Your task to perform on an android device: change keyboard looks Image 0: 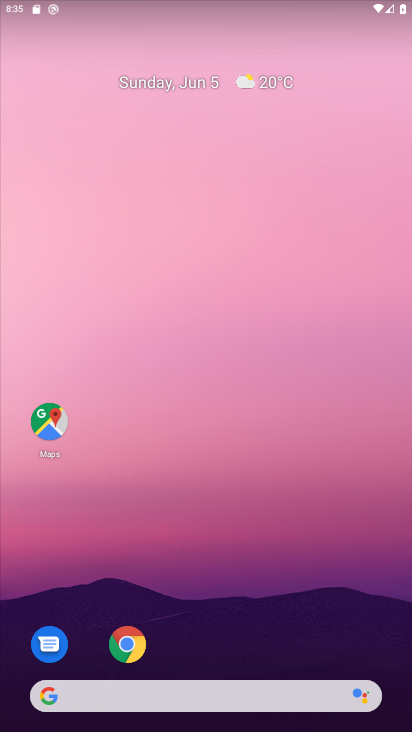
Step 0: drag from (203, 550) to (210, 173)
Your task to perform on an android device: change keyboard looks Image 1: 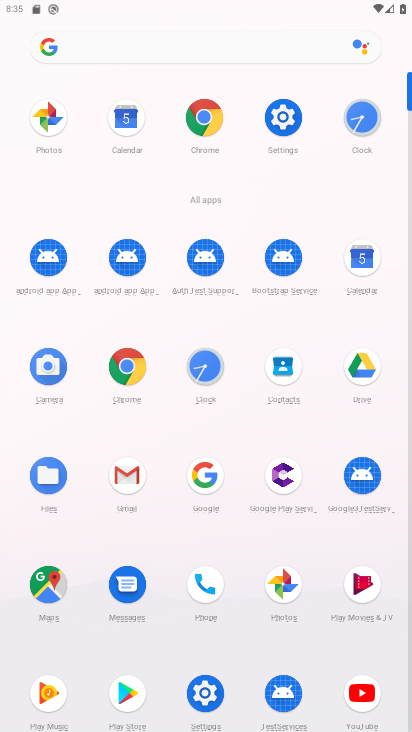
Step 1: click (200, 681)
Your task to perform on an android device: change keyboard looks Image 2: 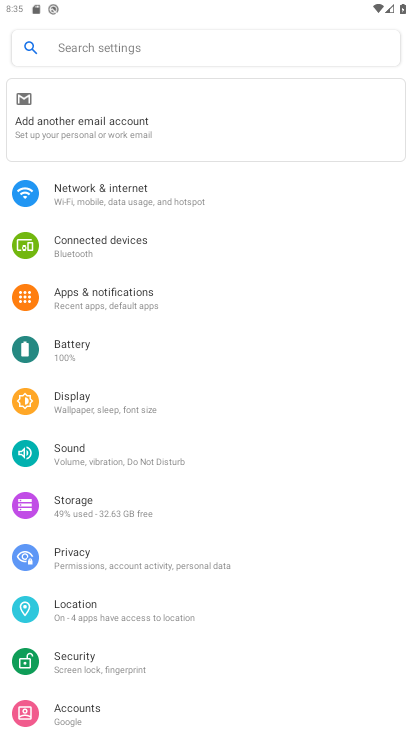
Step 2: drag from (193, 663) to (249, 302)
Your task to perform on an android device: change keyboard looks Image 3: 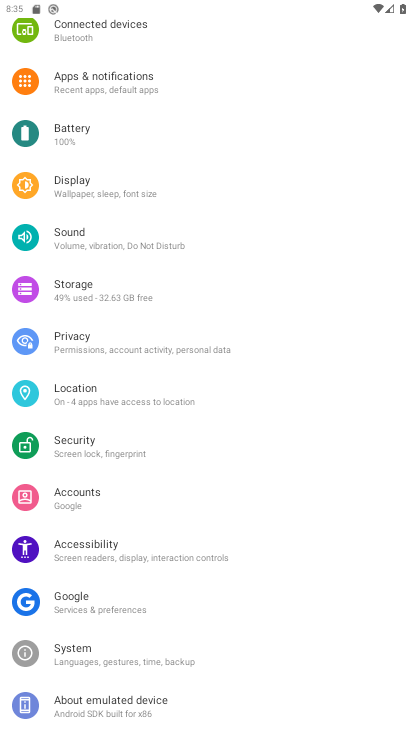
Step 3: click (172, 661)
Your task to perform on an android device: change keyboard looks Image 4: 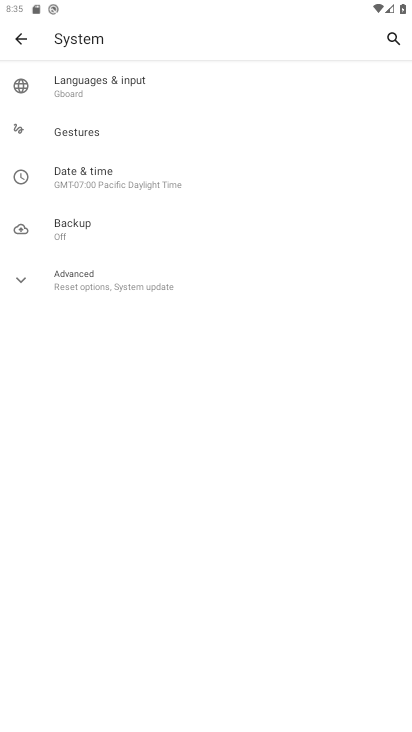
Step 4: click (168, 82)
Your task to perform on an android device: change keyboard looks Image 5: 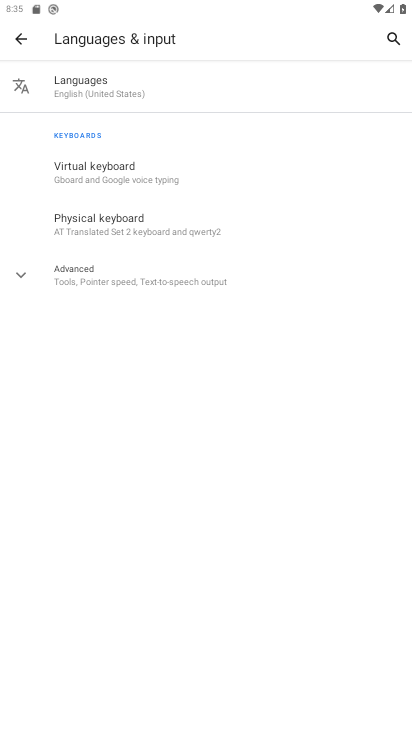
Step 5: click (182, 173)
Your task to perform on an android device: change keyboard looks Image 6: 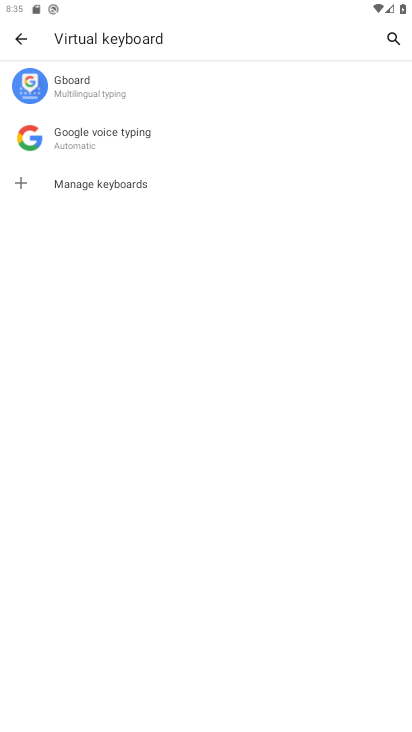
Step 6: click (157, 79)
Your task to perform on an android device: change keyboard looks Image 7: 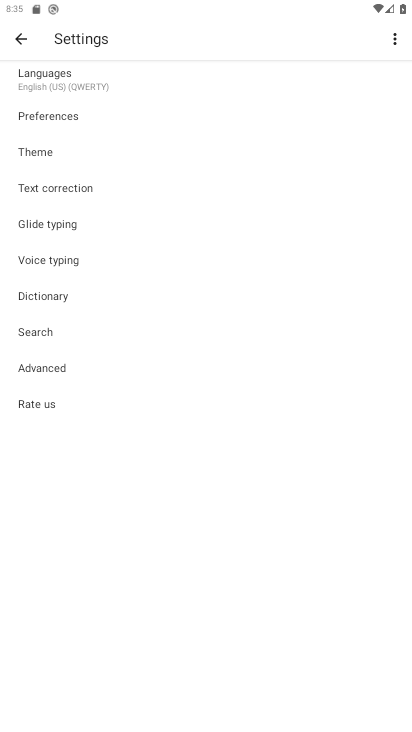
Step 7: click (30, 157)
Your task to perform on an android device: change keyboard looks Image 8: 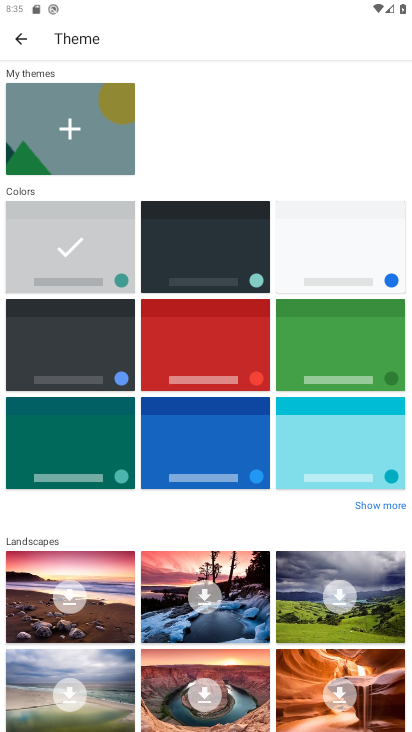
Step 8: click (194, 277)
Your task to perform on an android device: change keyboard looks Image 9: 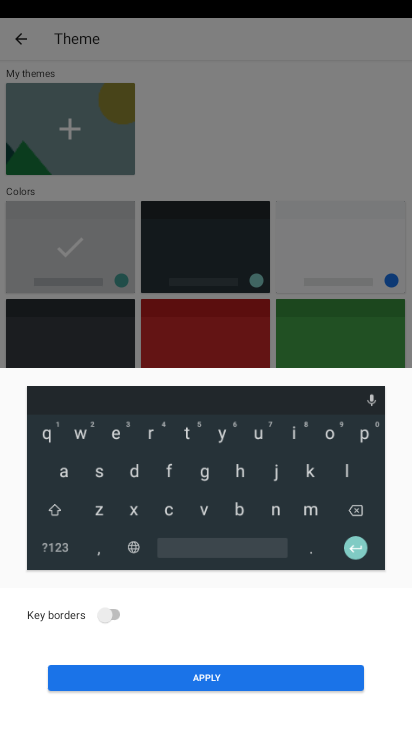
Step 9: click (301, 678)
Your task to perform on an android device: change keyboard looks Image 10: 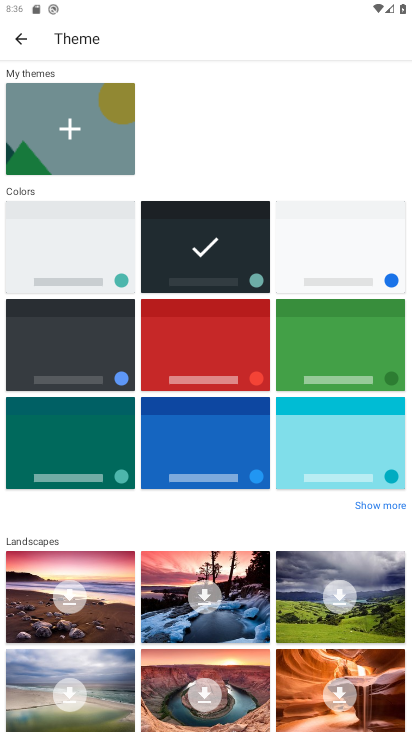
Step 10: task complete